Your task to perform on an android device: refresh tabs in the chrome app Image 0: 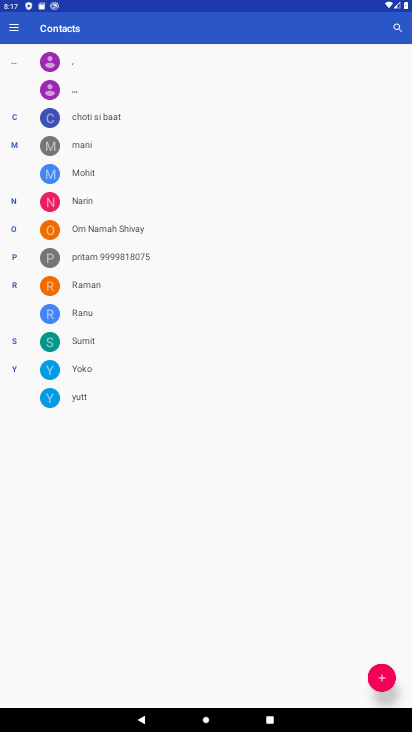
Step 0: press home button
Your task to perform on an android device: refresh tabs in the chrome app Image 1: 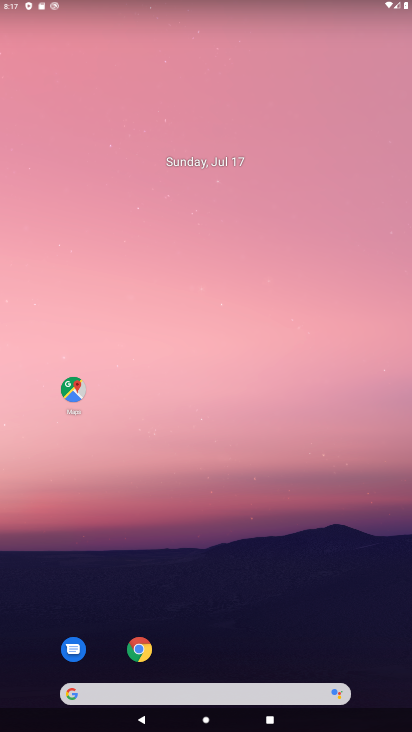
Step 1: click (140, 648)
Your task to perform on an android device: refresh tabs in the chrome app Image 2: 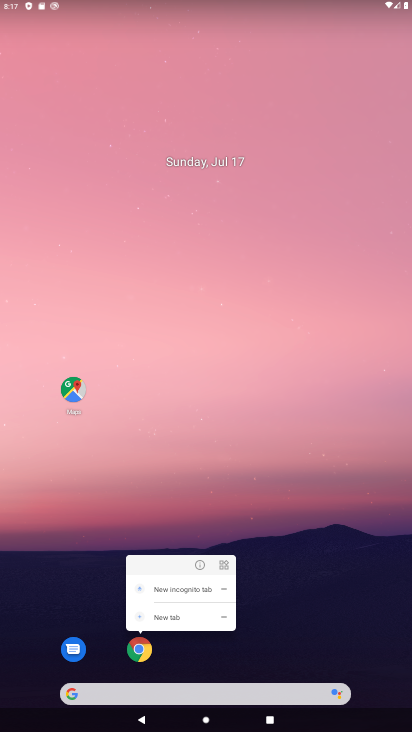
Step 2: click (141, 651)
Your task to perform on an android device: refresh tabs in the chrome app Image 3: 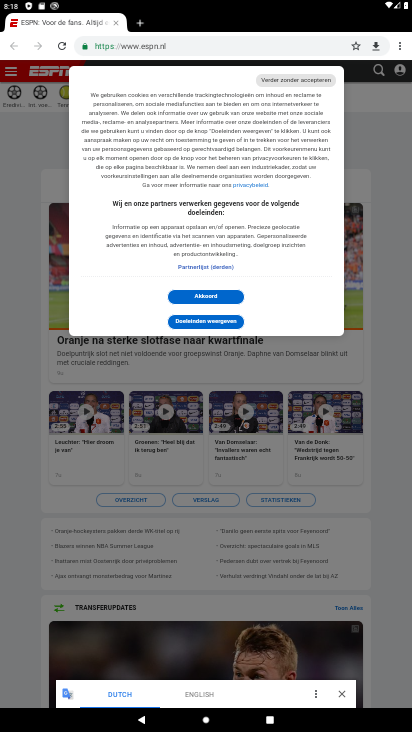
Step 3: click (59, 44)
Your task to perform on an android device: refresh tabs in the chrome app Image 4: 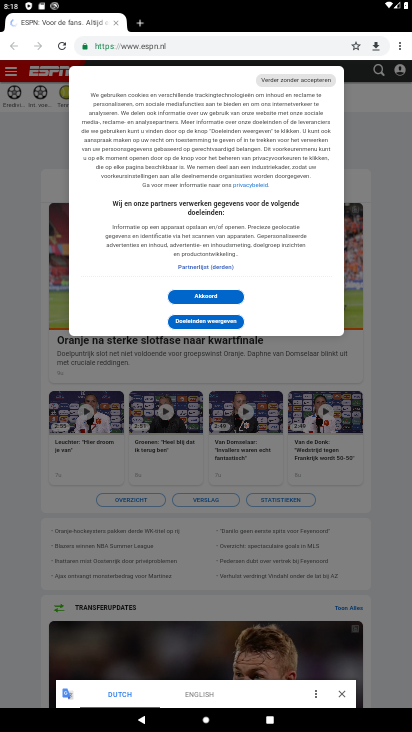
Step 4: task complete